Your task to perform on an android device: find which apps use the phone's location Image 0: 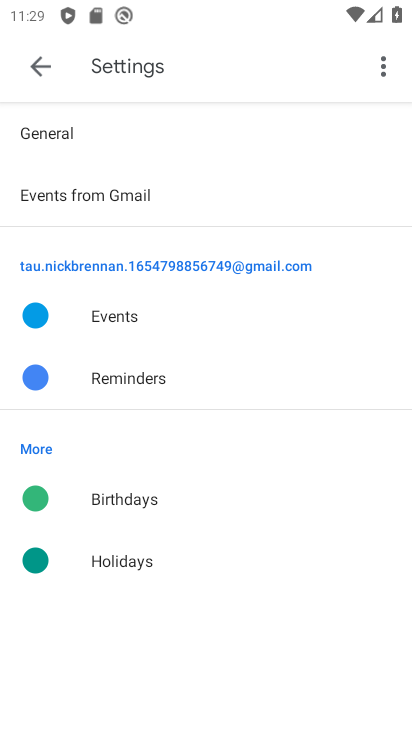
Step 0: press home button
Your task to perform on an android device: find which apps use the phone's location Image 1: 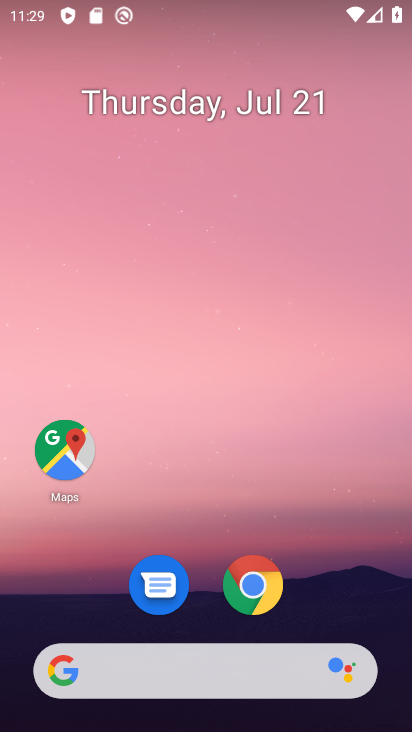
Step 1: drag from (234, 631) to (342, 43)
Your task to perform on an android device: find which apps use the phone's location Image 2: 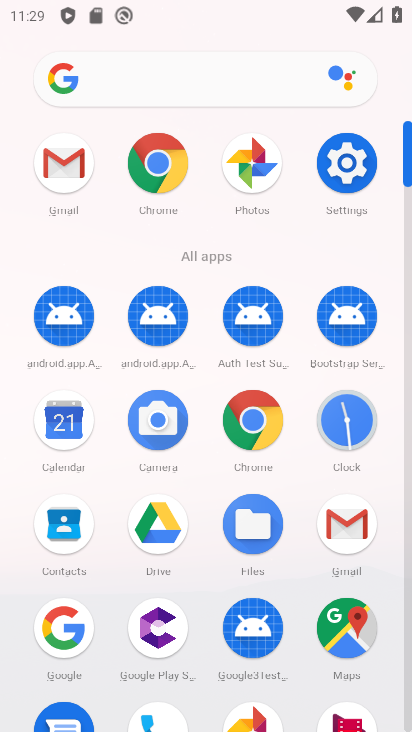
Step 2: click (340, 164)
Your task to perform on an android device: find which apps use the phone's location Image 3: 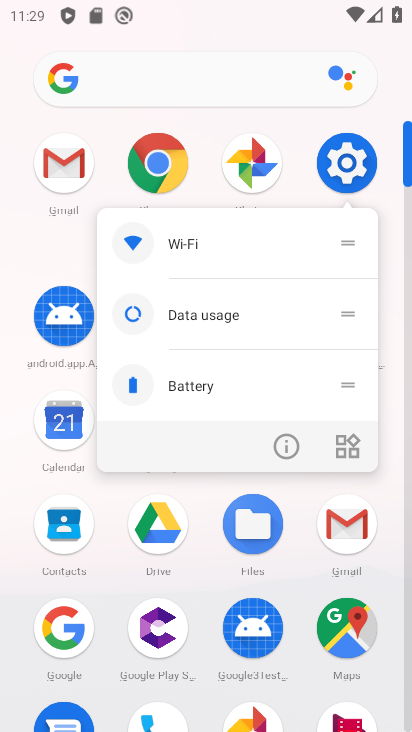
Step 3: click (350, 173)
Your task to perform on an android device: find which apps use the phone's location Image 4: 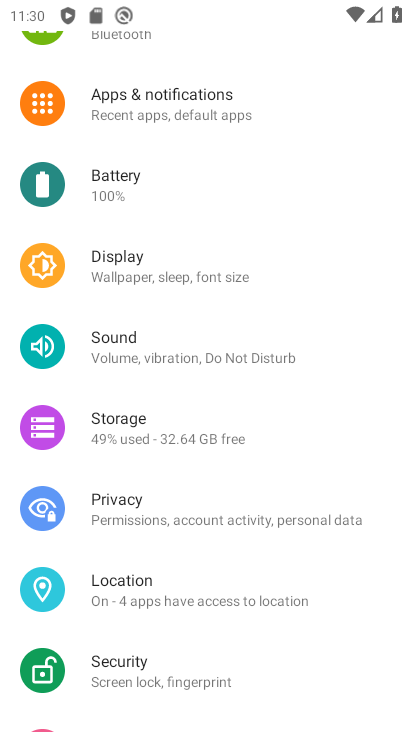
Step 4: click (134, 593)
Your task to perform on an android device: find which apps use the phone's location Image 5: 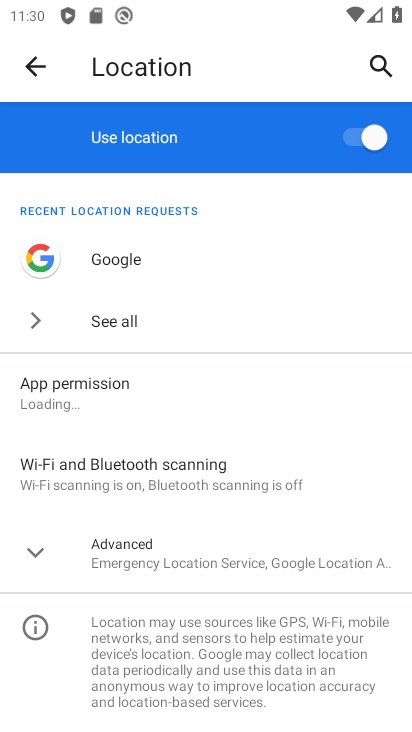
Step 5: drag from (313, 472) to (406, 189)
Your task to perform on an android device: find which apps use the phone's location Image 6: 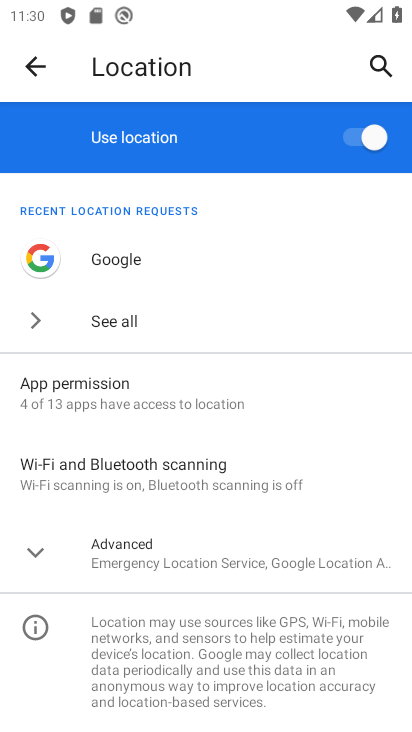
Step 6: click (105, 394)
Your task to perform on an android device: find which apps use the phone's location Image 7: 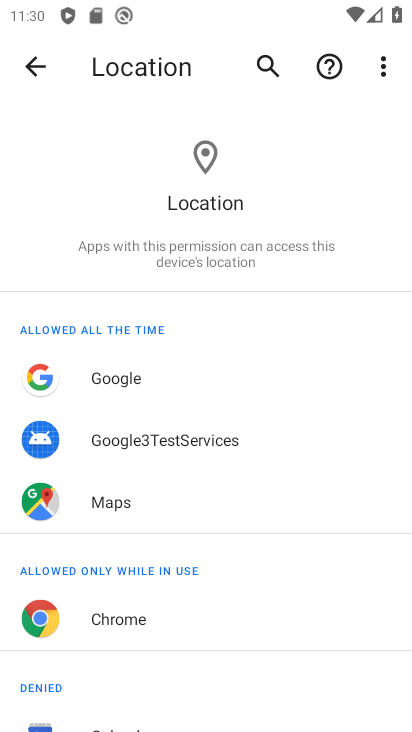
Step 7: drag from (228, 579) to (359, 86)
Your task to perform on an android device: find which apps use the phone's location Image 8: 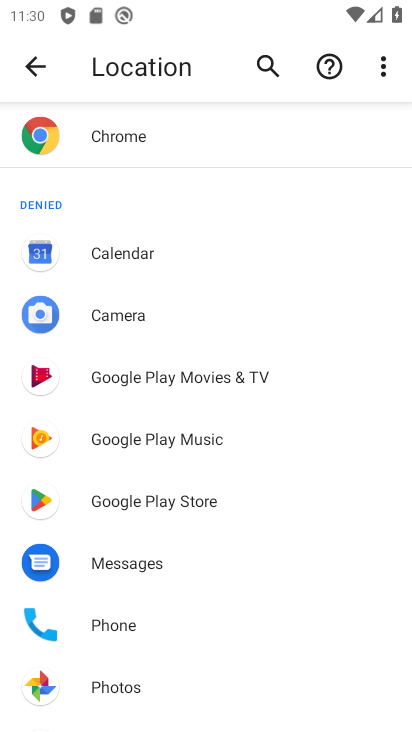
Step 8: click (123, 626)
Your task to perform on an android device: find which apps use the phone's location Image 9: 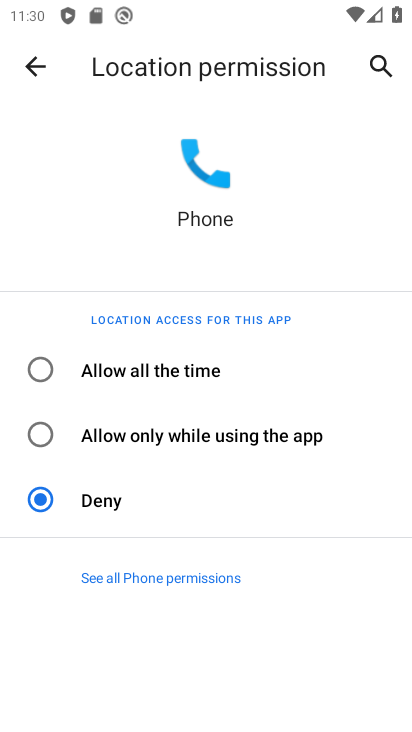
Step 9: task complete